Your task to perform on an android device: remove spam from my inbox in the gmail app Image 0: 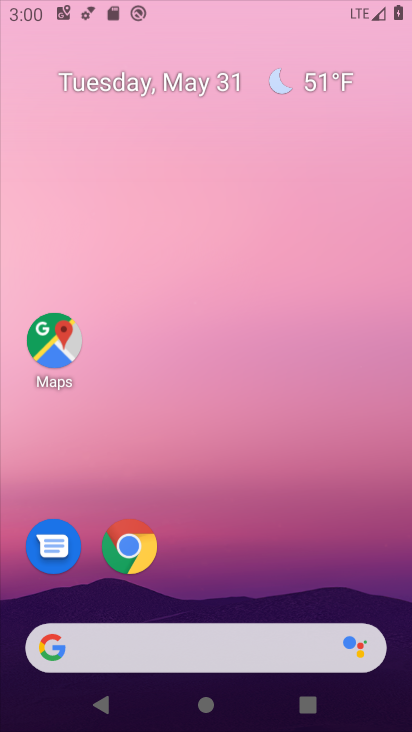
Step 0: press home button
Your task to perform on an android device: remove spam from my inbox in the gmail app Image 1: 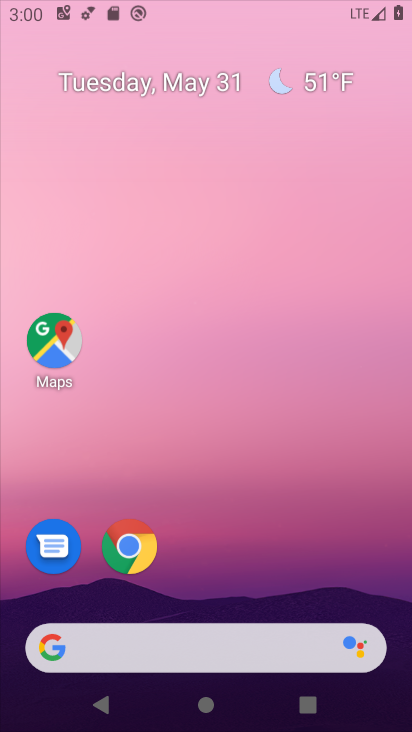
Step 1: click (260, 67)
Your task to perform on an android device: remove spam from my inbox in the gmail app Image 2: 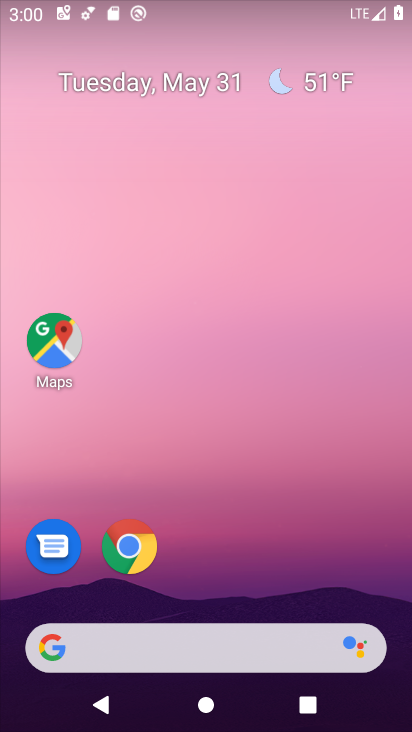
Step 2: press home button
Your task to perform on an android device: remove spam from my inbox in the gmail app Image 3: 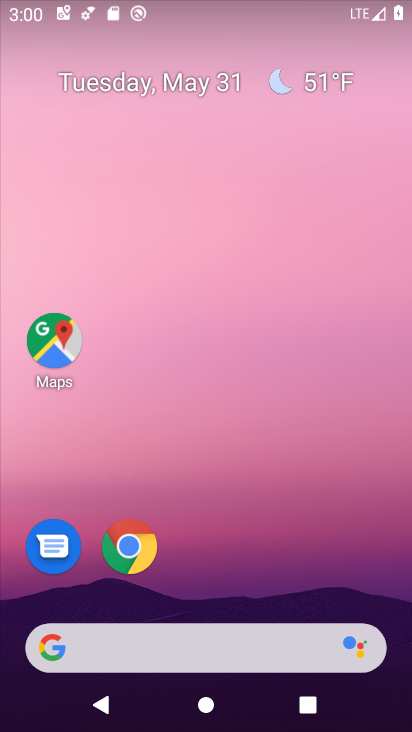
Step 3: drag from (284, 472) to (199, 0)
Your task to perform on an android device: remove spam from my inbox in the gmail app Image 4: 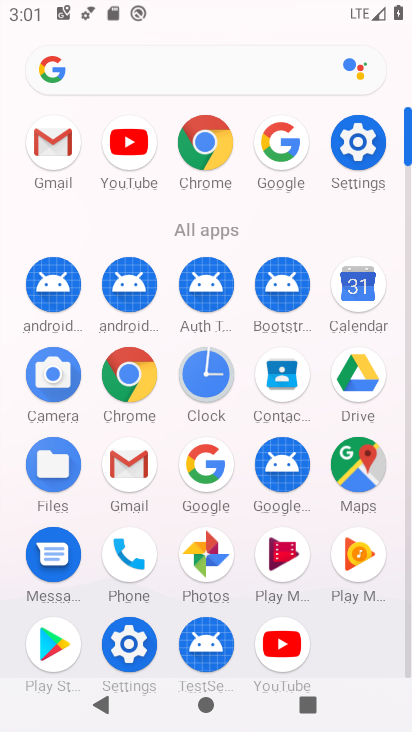
Step 4: click (132, 471)
Your task to perform on an android device: remove spam from my inbox in the gmail app Image 5: 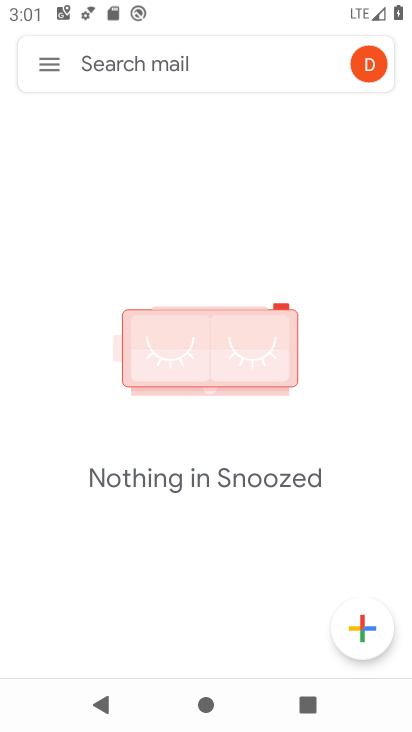
Step 5: click (59, 69)
Your task to perform on an android device: remove spam from my inbox in the gmail app Image 6: 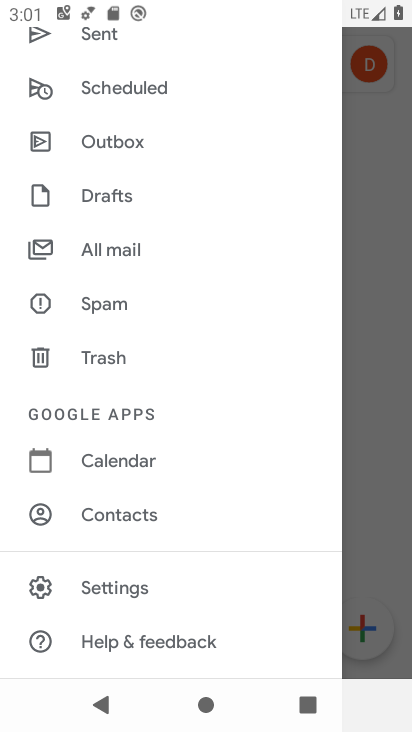
Step 6: click (123, 302)
Your task to perform on an android device: remove spam from my inbox in the gmail app Image 7: 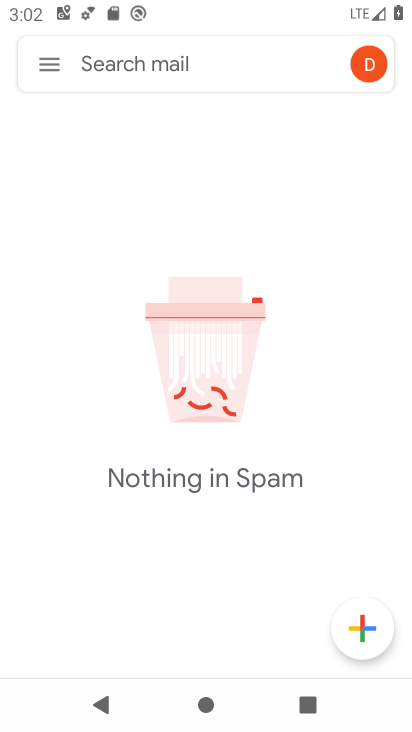
Step 7: task complete